Your task to perform on an android device: Set the phone to "Do not disturb". Image 0: 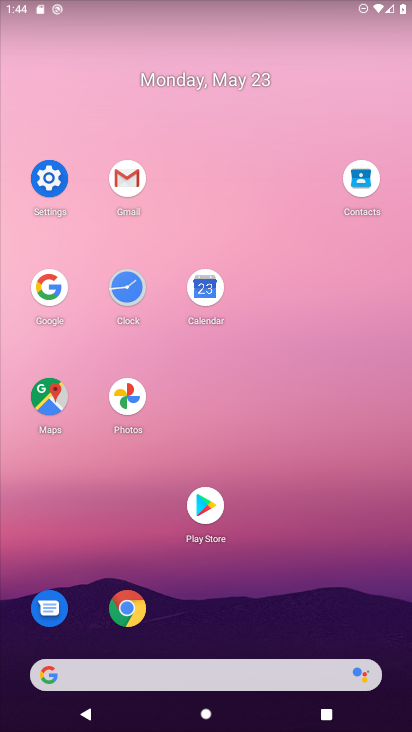
Step 0: click (59, 176)
Your task to perform on an android device: Set the phone to "Do not disturb". Image 1: 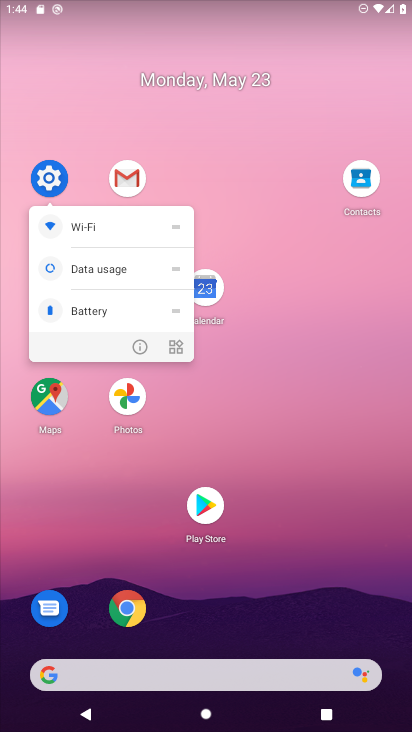
Step 1: click (61, 179)
Your task to perform on an android device: Set the phone to "Do not disturb". Image 2: 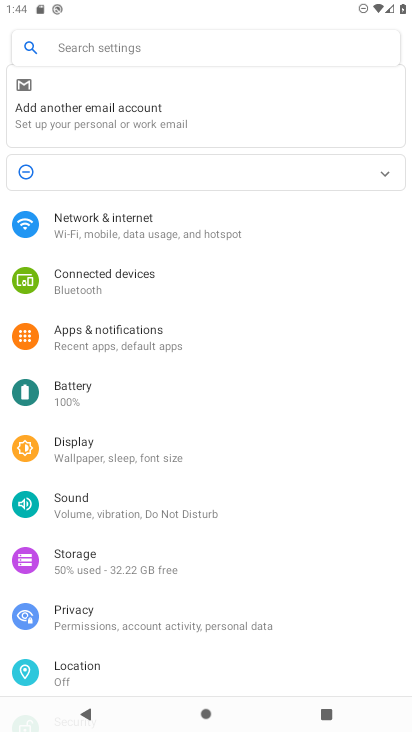
Step 2: drag from (258, 597) to (243, 476)
Your task to perform on an android device: Set the phone to "Do not disturb". Image 3: 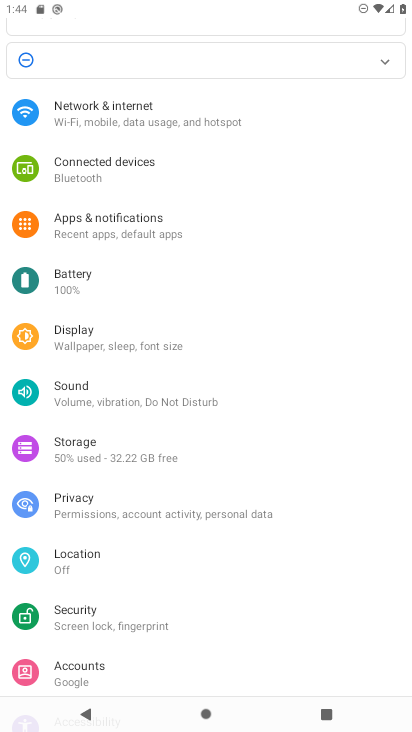
Step 3: click (166, 402)
Your task to perform on an android device: Set the phone to "Do not disturb". Image 4: 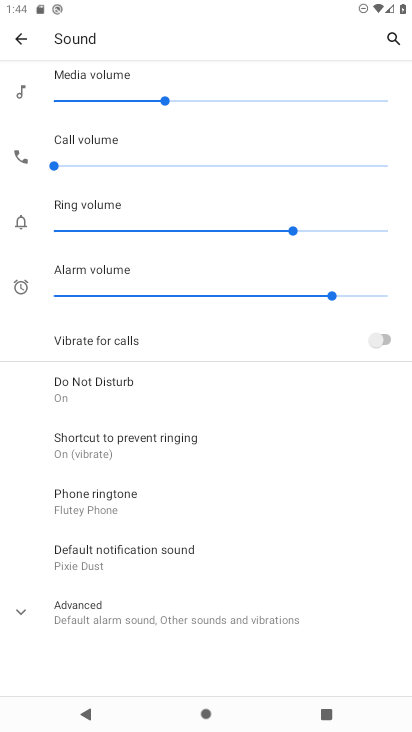
Step 4: task complete